Your task to perform on an android device: Check the weather Image 0: 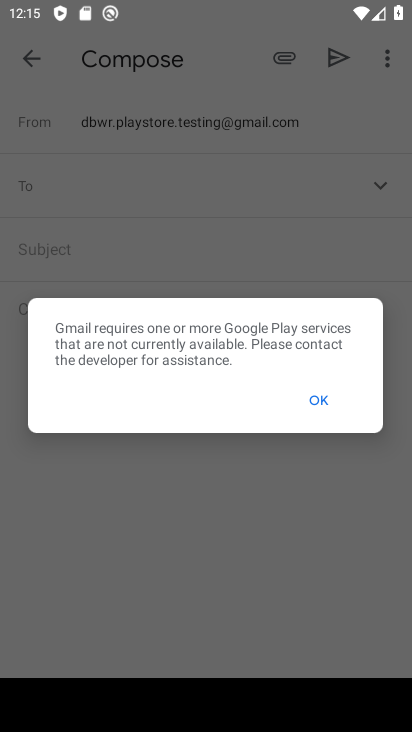
Step 0: press home button
Your task to perform on an android device: Check the weather Image 1: 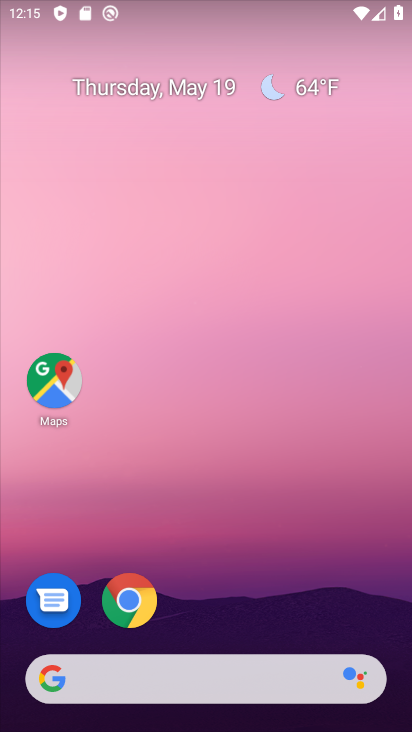
Step 1: click (199, 658)
Your task to perform on an android device: Check the weather Image 2: 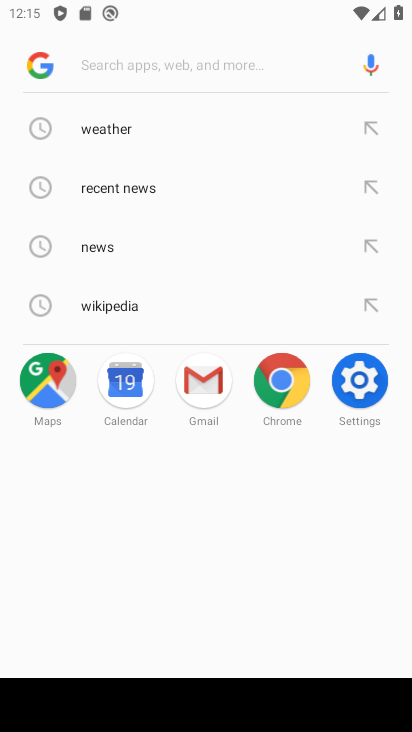
Step 2: click (164, 123)
Your task to perform on an android device: Check the weather Image 3: 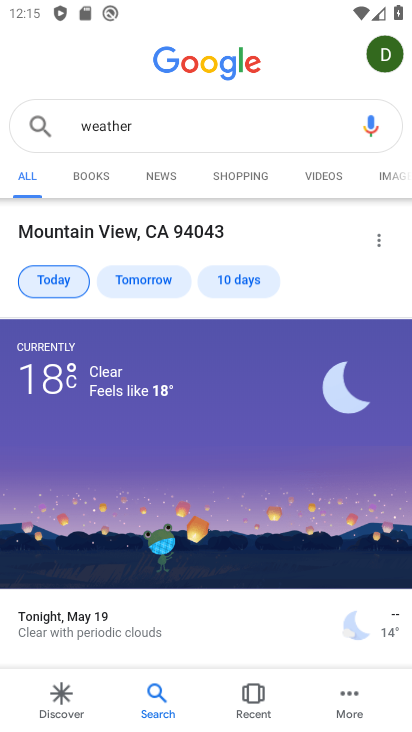
Step 3: task complete